Your task to perform on an android device: Turn on the flashlight Image 0: 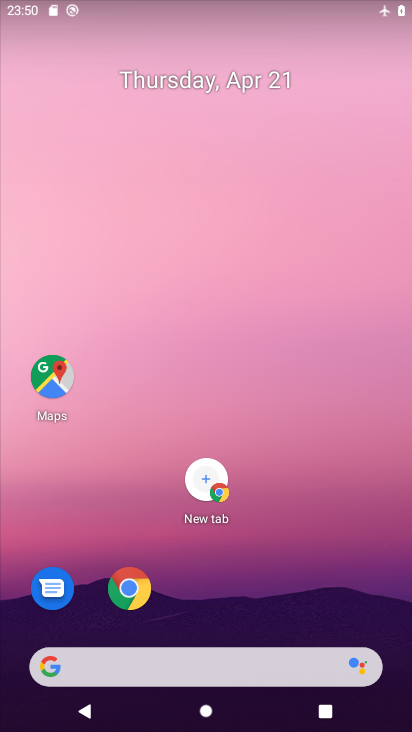
Step 0: task impossible